Your task to perform on an android device: Open calendar and show me the third week of next month Image 0: 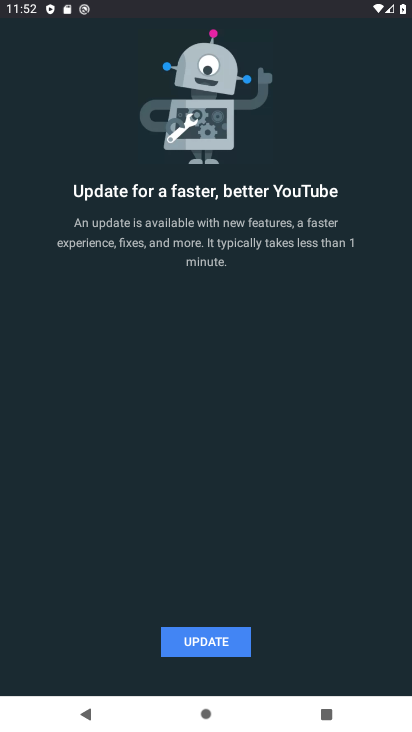
Step 0: press back button
Your task to perform on an android device: Open calendar and show me the third week of next month Image 1: 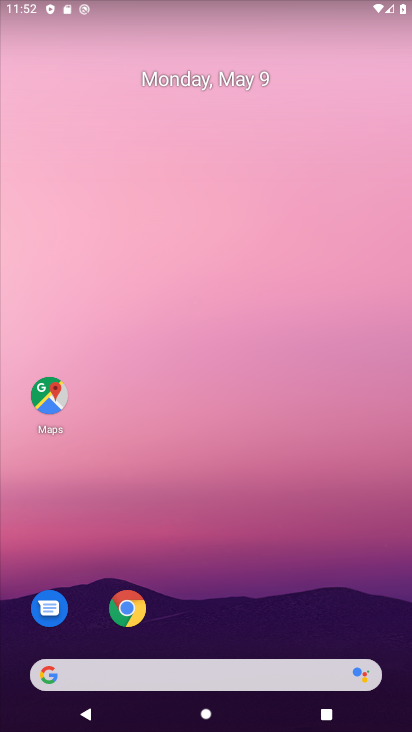
Step 1: drag from (276, 601) to (184, 6)
Your task to perform on an android device: Open calendar and show me the third week of next month Image 2: 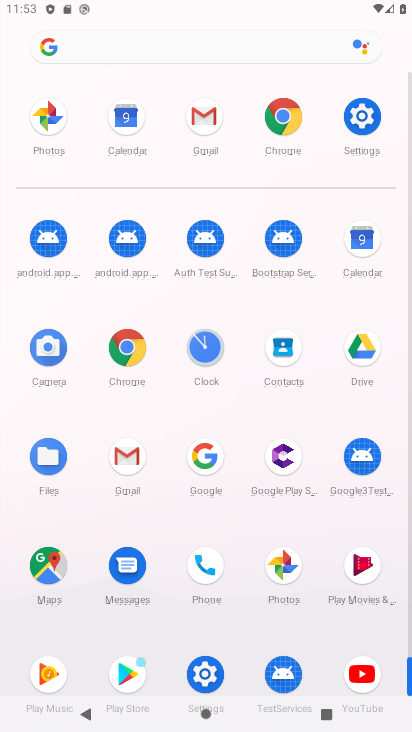
Step 2: drag from (17, 632) to (12, 196)
Your task to perform on an android device: Open calendar and show me the third week of next month Image 3: 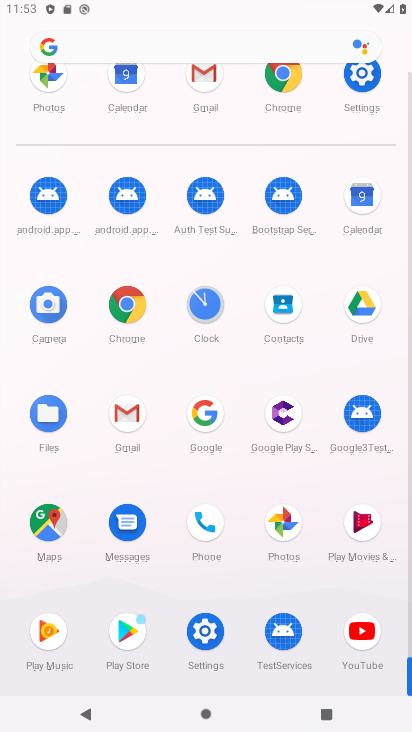
Step 3: drag from (13, 141) to (25, 490)
Your task to perform on an android device: Open calendar and show me the third week of next month Image 4: 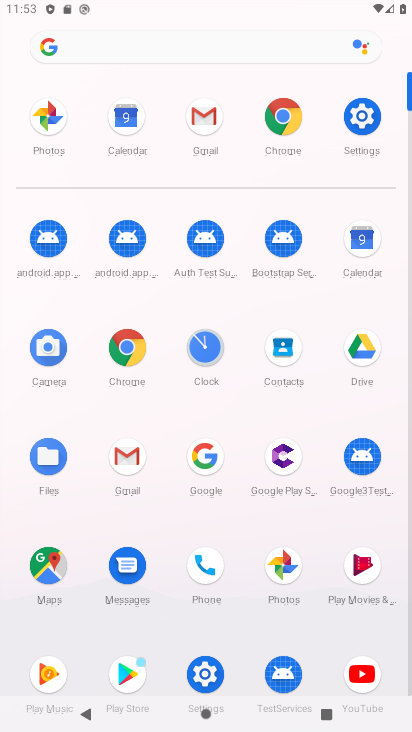
Step 4: click (124, 112)
Your task to perform on an android device: Open calendar and show me the third week of next month Image 5: 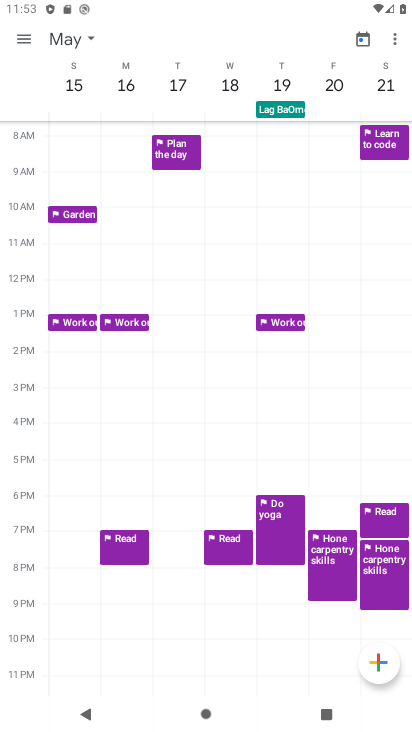
Step 5: click (66, 40)
Your task to perform on an android device: Open calendar and show me the third week of next month Image 6: 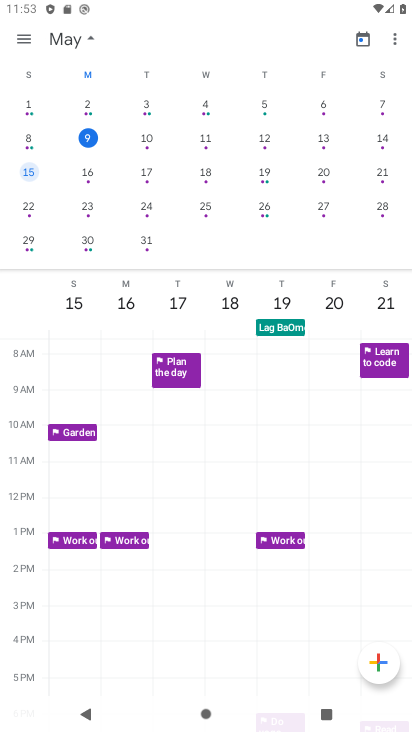
Step 6: drag from (383, 167) to (8, 124)
Your task to perform on an android device: Open calendar and show me the third week of next month Image 7: 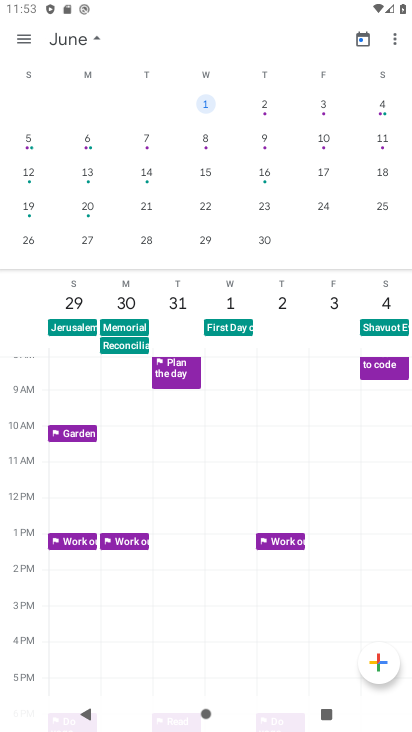
Step 7: click (32, 176)
Your task to perform on an android device: Open calendar and show me the third week of next month Image 8: 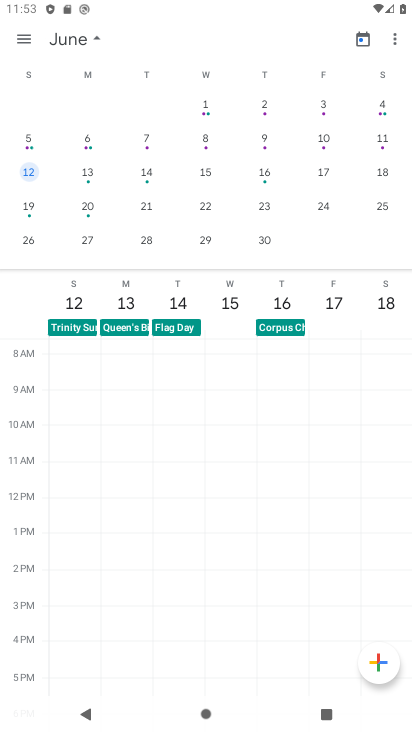
Step 8: click (29, 43)
Your task to perform on an android device: Open calendar and show me the third week of next month Image 9: 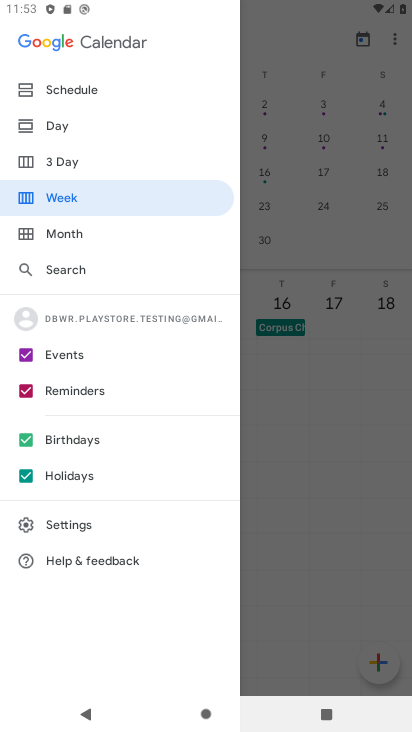
Step 9: click (84, 207)
Your task to perform on an android device: Open calendar and show me the third week of next month Image 10: 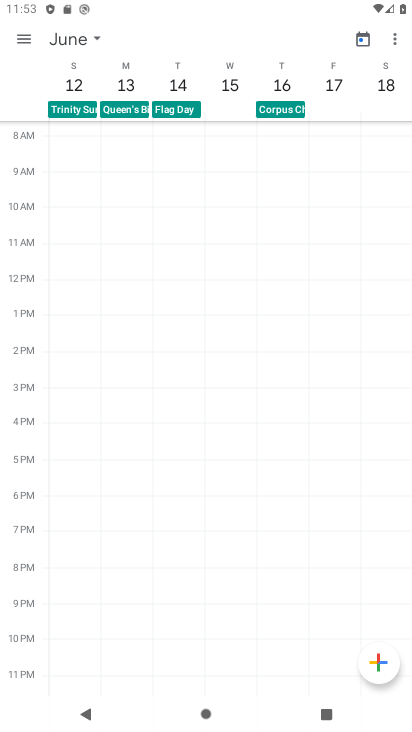
Step 10: task complete